Your task to perform on an android device: toggle translation in the chrome app Image 0: 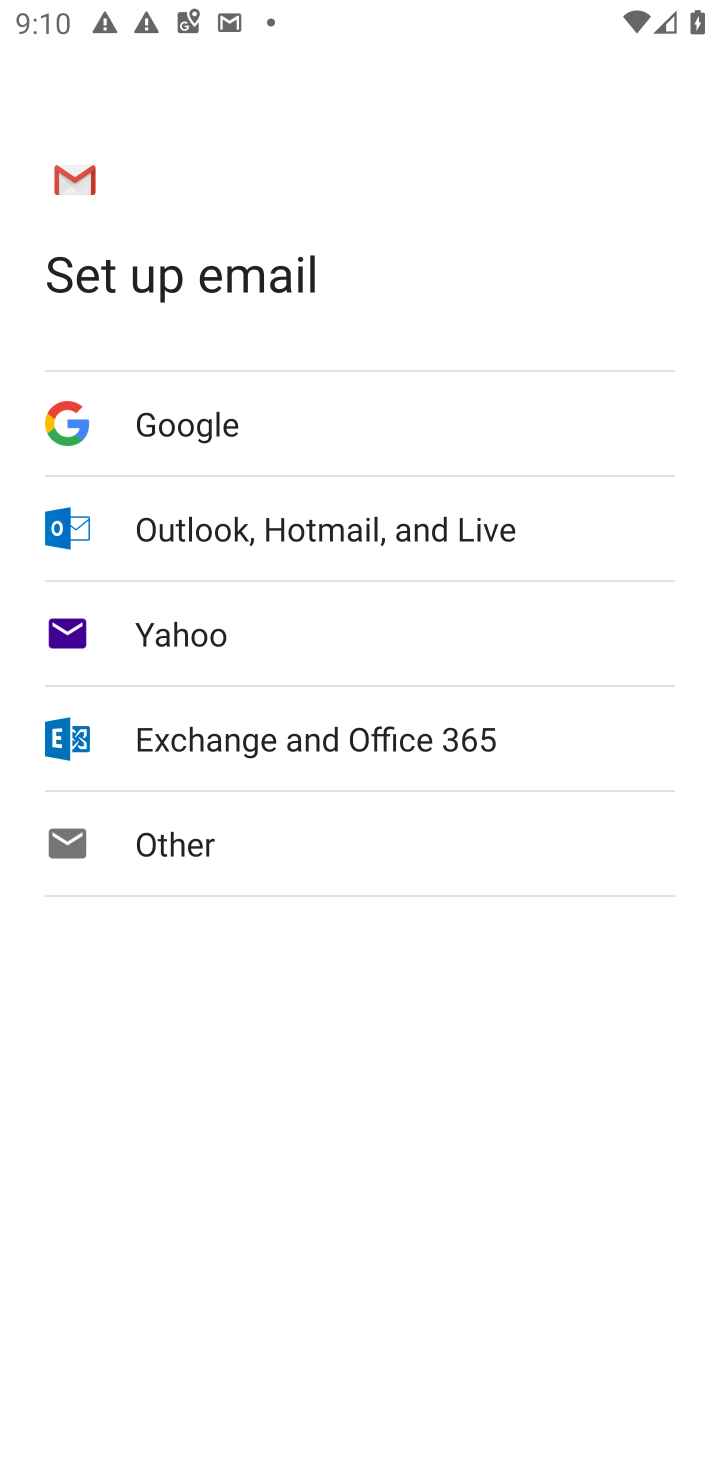
Step 0: press home button
Your task to perform on an android device: toggle translation in the chrome app Image 1: 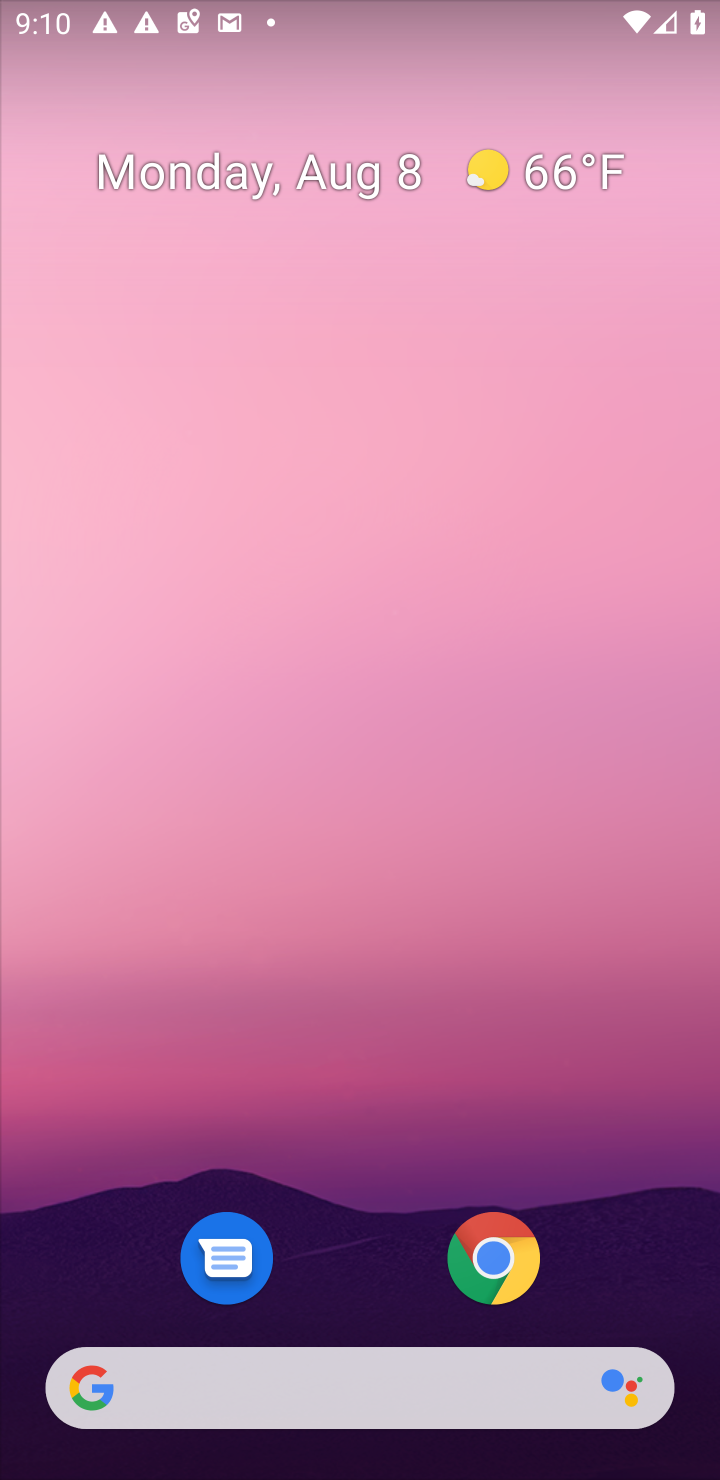
Step 1: click (482, 1282)
Your task to perform on an android device: toggle translation in the chrome app Image 2: 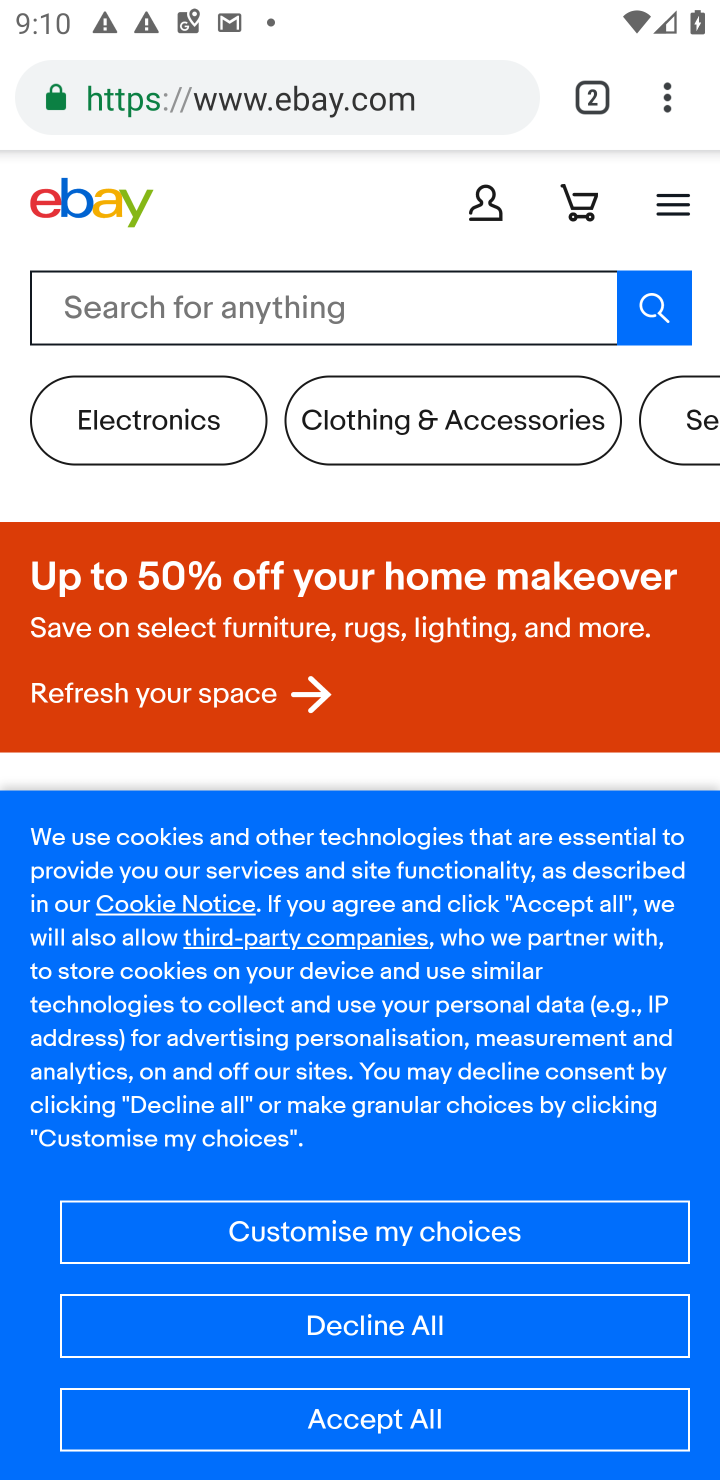
Step 2: task complete